Your task to perform on an android device: turn off location history Image 0: 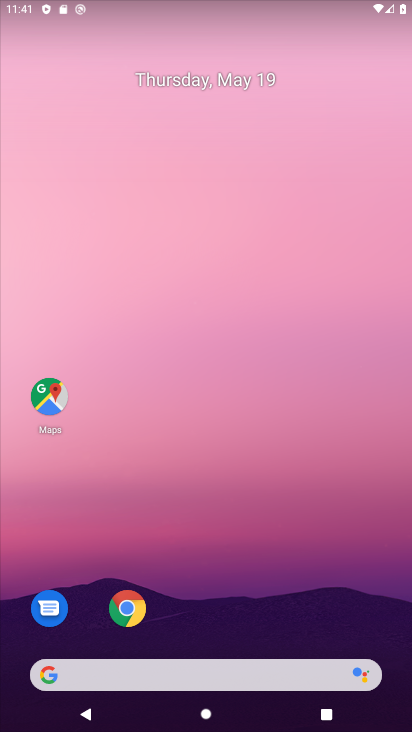
Step 0: drag from (341, 634) to (344, 56)
Your task to perform on an android device: turn off location history Image 1: 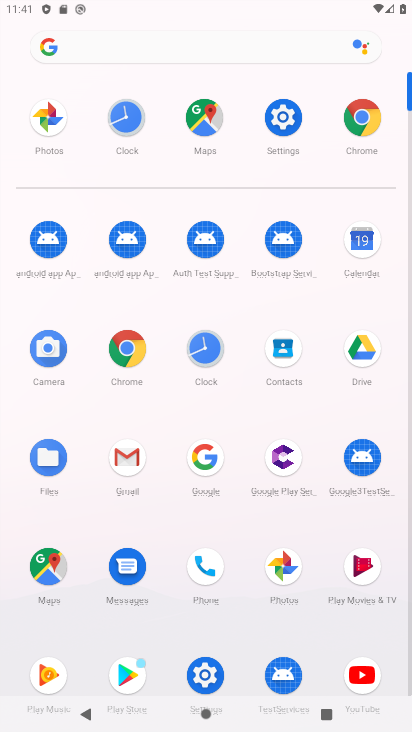
Step 1: click (268, 114)
Your task to perform on an android device: turn off location history Image 2: 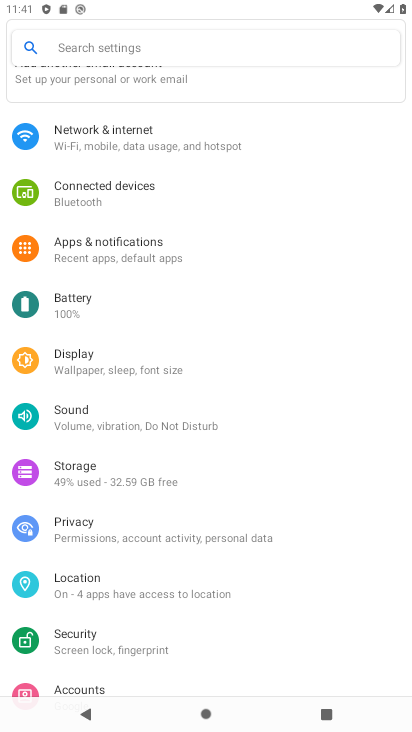
Step 2: drag from (303, 264) to (315, 391)
Your task to perform on an android device: turn off location history Image 3: 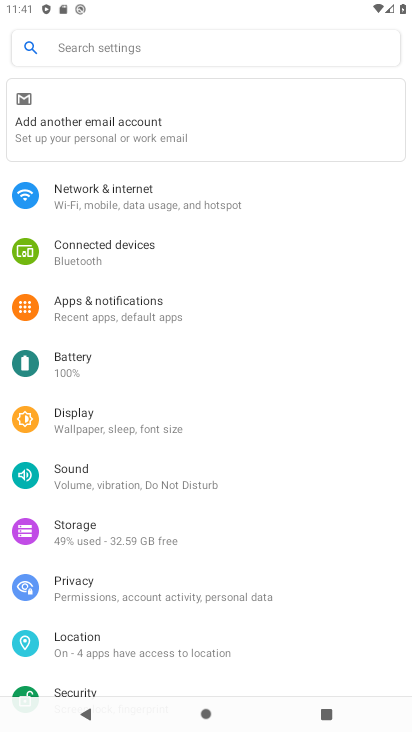
Step 3: drag from (316, 436) to (321, 338)
Your task to perform on an android device: turn off location history Image 4: 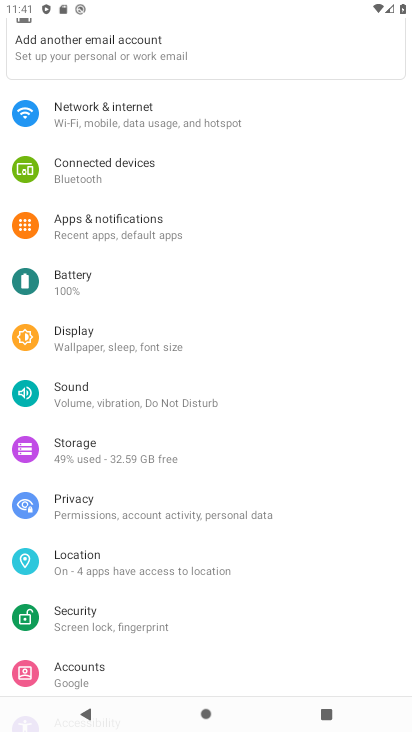
Step 4: drag from (312, 451) to (313, 387)
Your task to perform on an android device: turn off location history Image 5: 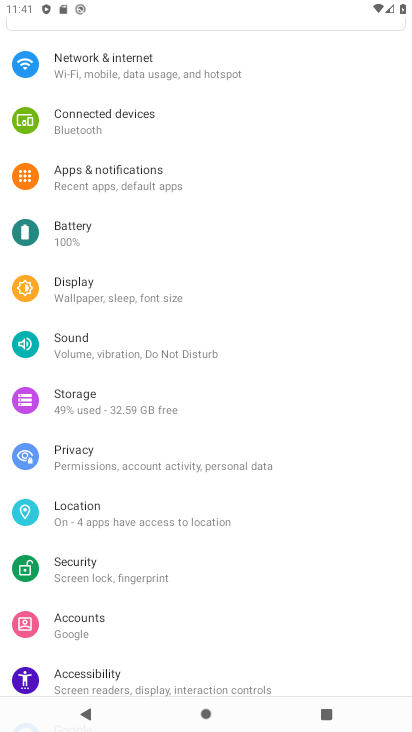
Step 5: drag from (304, 458) to (315, 410)
Your task to perform on an android device: turn off location history Image 6: 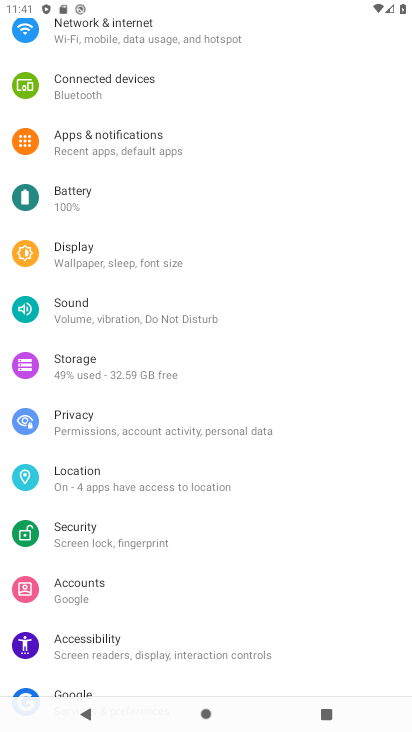
Step 6: drag from (317, 486) to (324, 417)
Your task to perform on an android device: turn off location history Image 7: 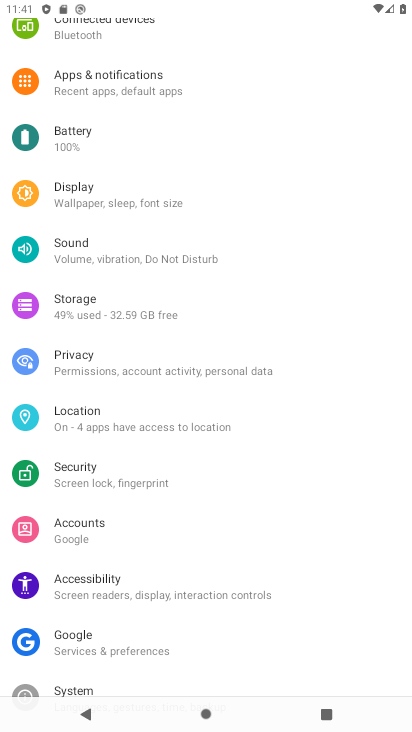
Step 7: drag from (323, 461) to (327, 403)
Your task to perform on an android device: turn off location history Image 8: 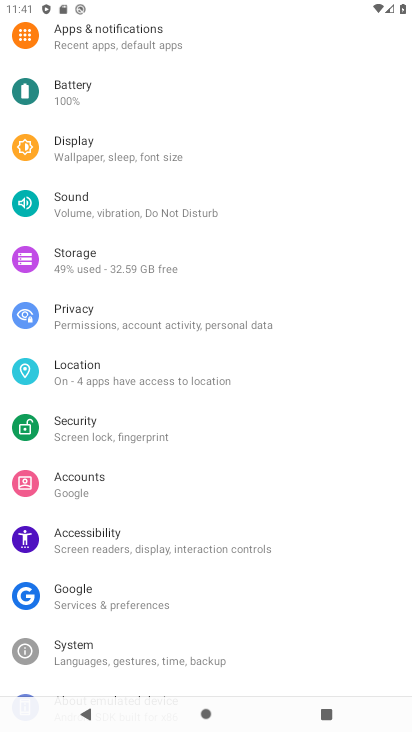
Step 8: click (194, 391)
Your task to perform on an android device: turn off location history Image 9: 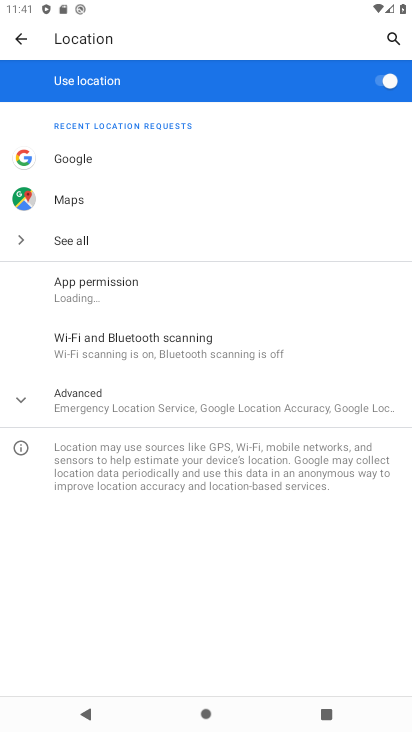
Step 9: click (223, 412)
Your task to perform on an android device: turn off location history Image 10: 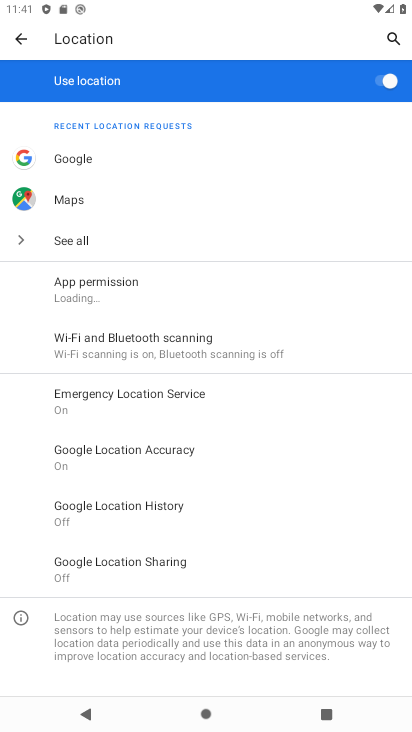
Step 10: drag from (285, 489) to (295, 406)
Your task to perform on an android device: turn off location history Image 11: 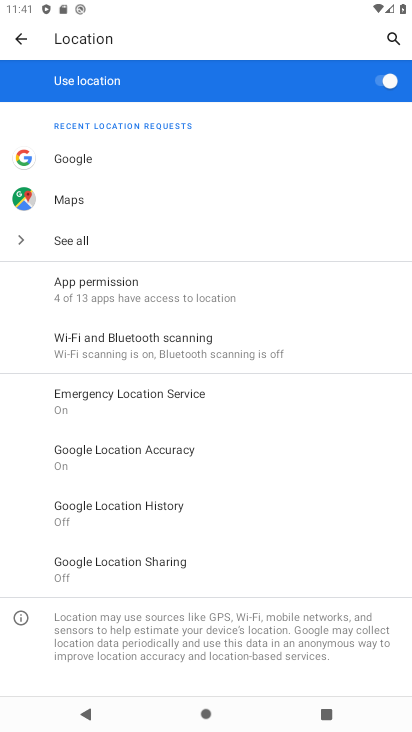
Step 11: click (184, 510)
Your task to perform on an android device: turn off location history Image 12: 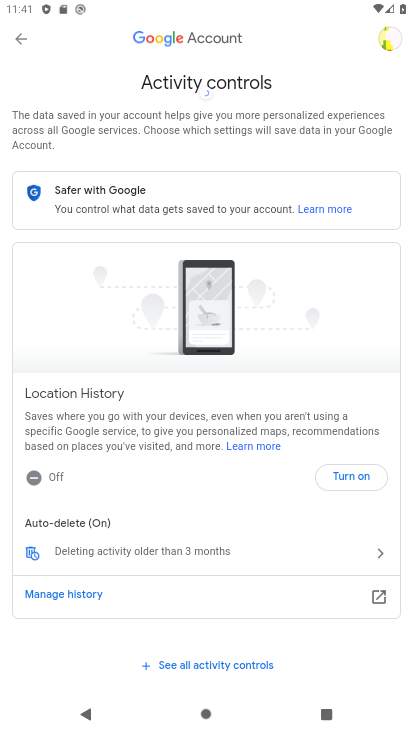
Step 12: task complete